Your task to perform on an android device: change the clock display to analog Image 0: 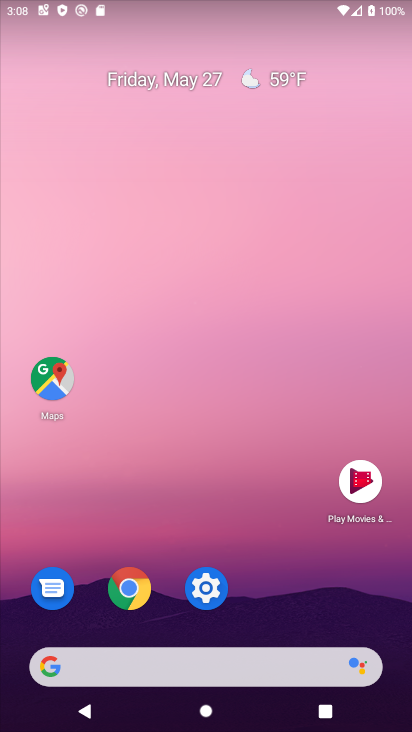
Step 0: drag from (269, 711) to (174, 150)
Your task to perform on an android device: change the clock display to analog Image 1: 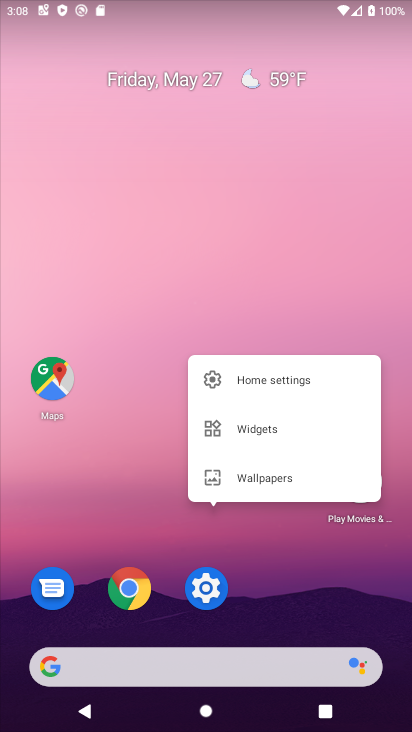
Step 1: click (144, 260)
Your task to perform on an android device: change the clock display to analog Image 2: 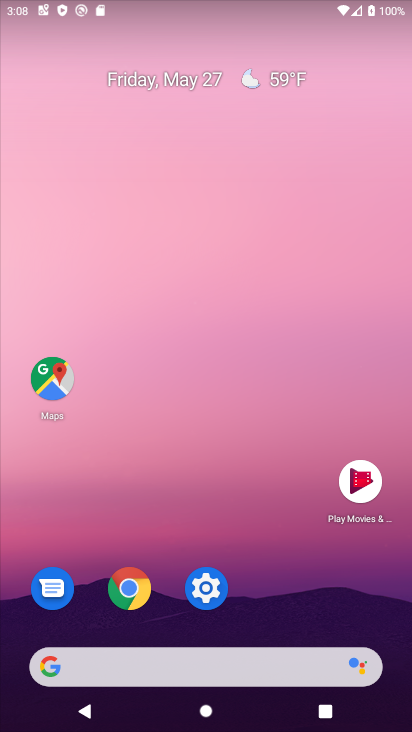
Step 2: click (188, 298)
Your task to perform on an android device: change the clock display to analog Image 3: 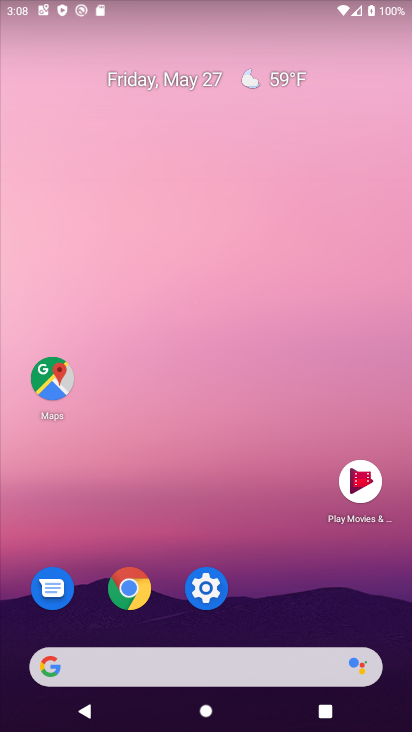
Step 3: click (188, 298)
Your task to perform on an android device: change the clock display to analog Image 4: 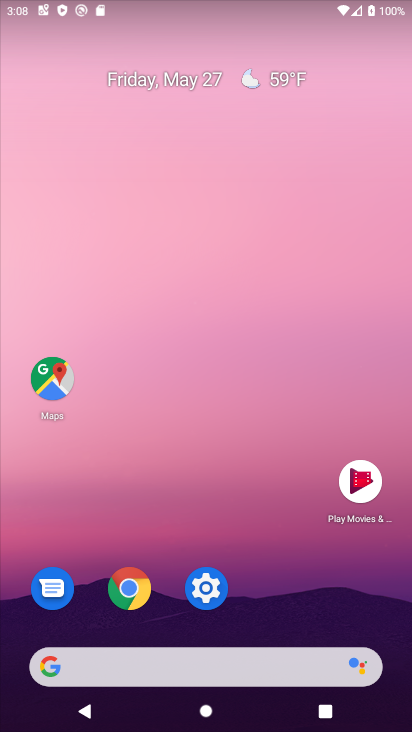
Step 4: drag from (278, 583) to (146, 135)
Your task to perform on an android device: change the clock display to analog Image 5: 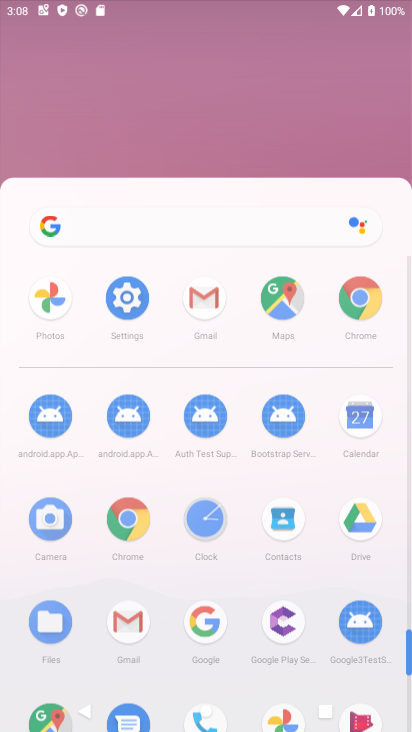
Step 5: drag from (227, 505) to (86, 21)
Your task to perform on an android device: change the clock display to analog Image 6: 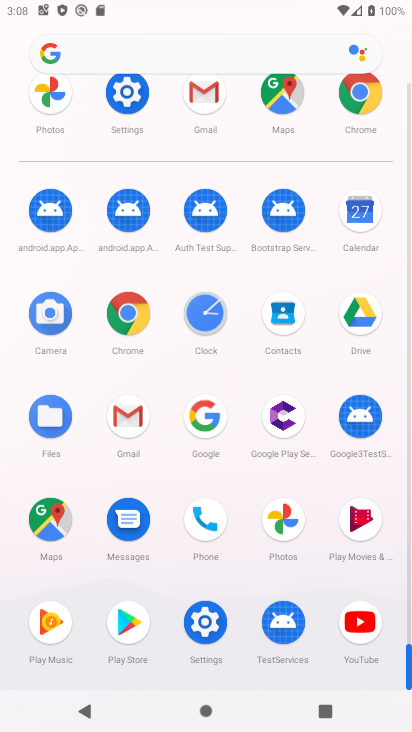
Step 6: drag from (249, 510) to (135, 66)
Your task to perform on an android device: change the clock display to analog Image 7: 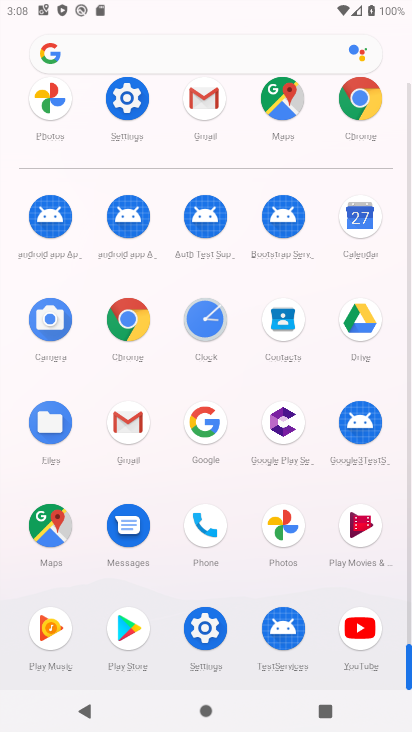
Step 7: click (209, 324)
Your task to perform on an android device: change the clock display to analog Image 8: 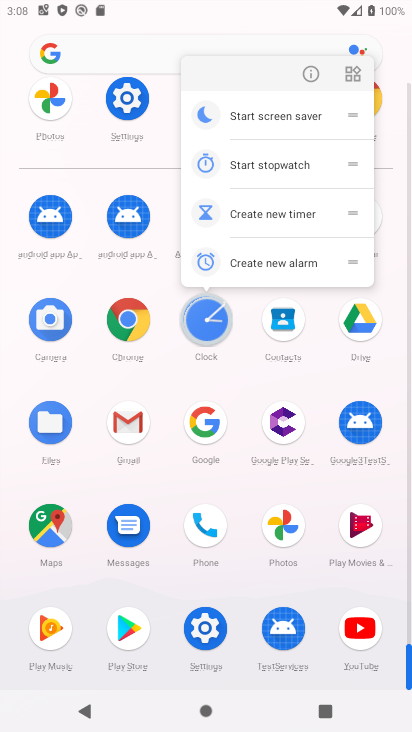
Step 8: click (209, 324)
Your task to perform on an android device: change the clock display to analog Image 9: 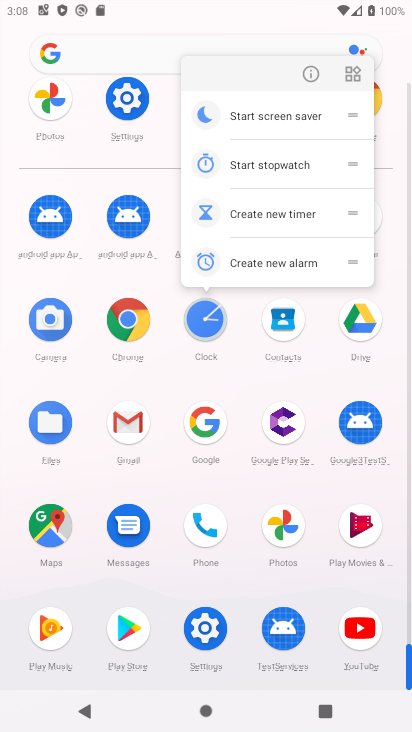
Step 9: click (210, 321)
Your task to perform on an android device: change the clock display to analog Image 10: 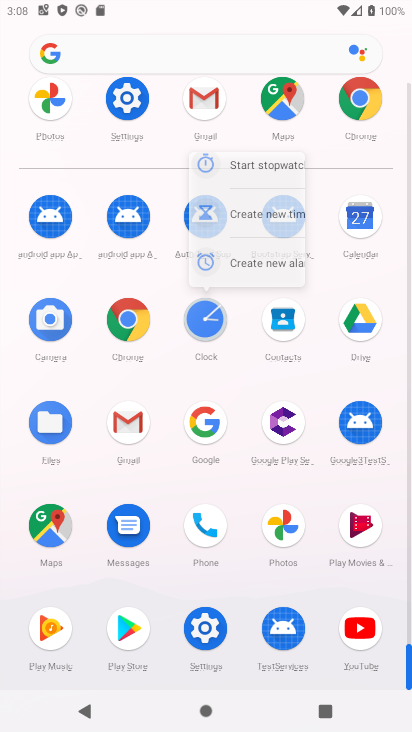
Step 10: click (210, 321)
Your task to perform on an android device: change the clock display to analog Image 11: 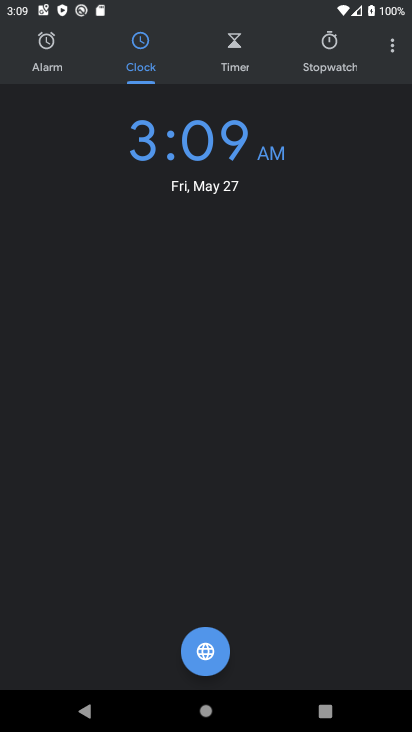
Step 11: click (390, 42)
Your task to perform on an android device: change the clock display to analog Image 12: 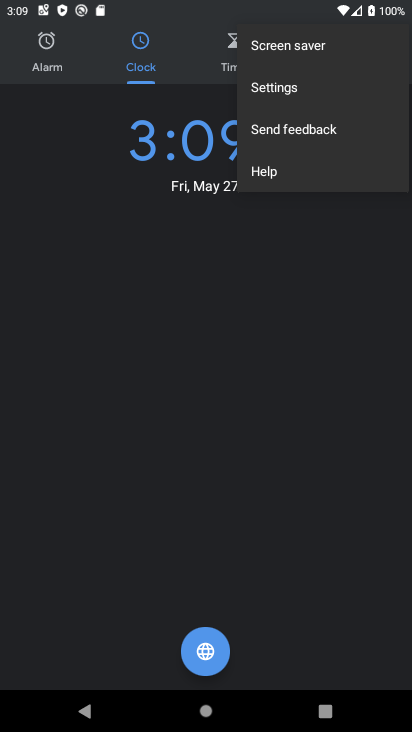
Step 12: click (280, 96)
Your task to perform on an android device: change the clock display to analog Image 13: 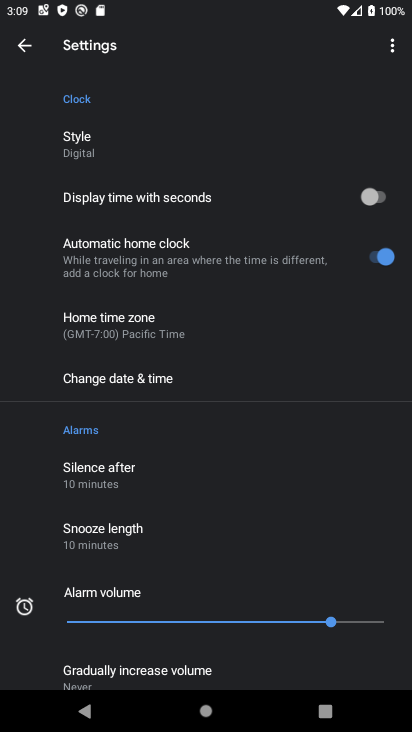
Step 13: click (90, 135)
Your task to perform on an android device: change the clock display to analog Image 14: 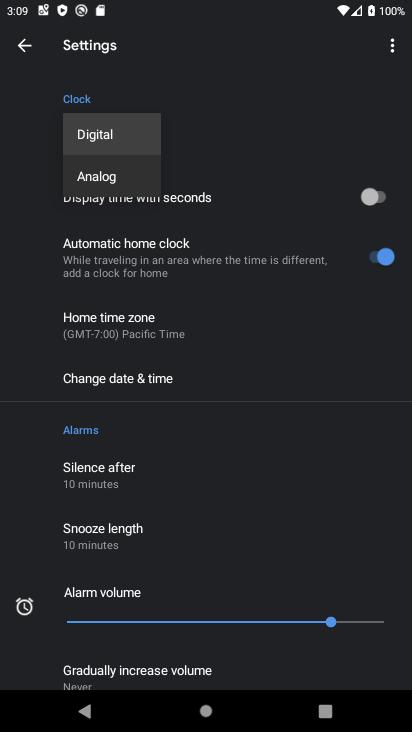
Step 14: click (108, 181)
Your task to perform on an android device: change the clock display to analog Image 15: 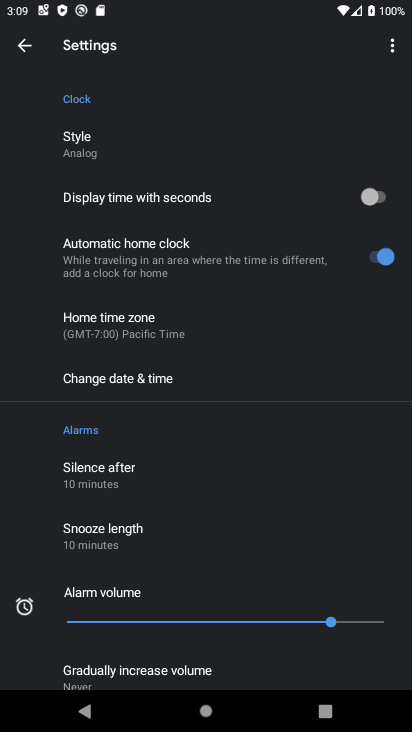
Step 15: task complete